Your task to perform on an android device: turn on location history Image 0: 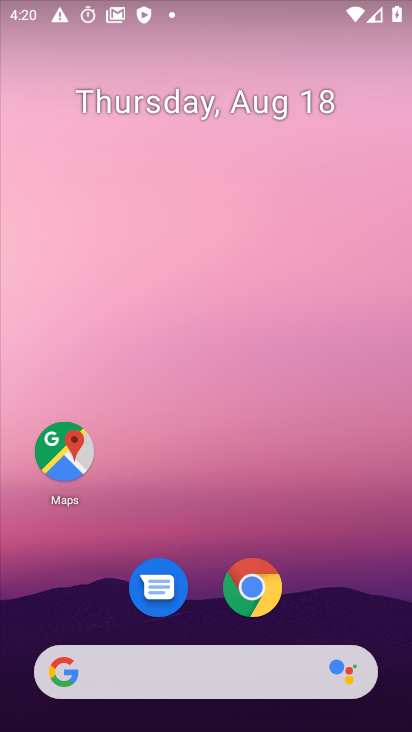
Step 0: drag from (305, 511) to (318, 128)
Your task to perform on an android device: turn on location history Image 1: 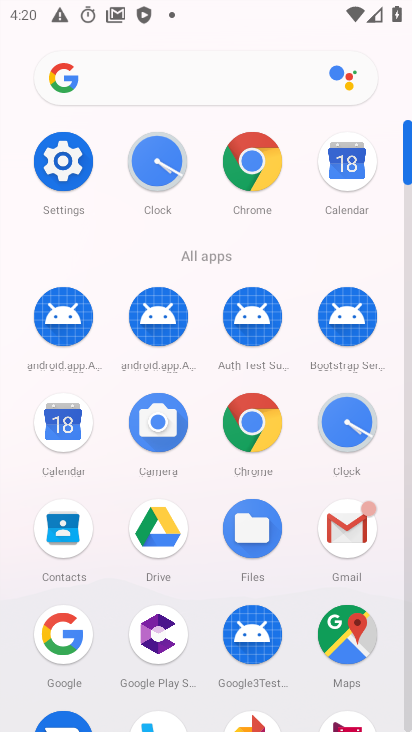
Step 1: click (347, 638)
Your task to perform on an android device: turn on location history Image 2: 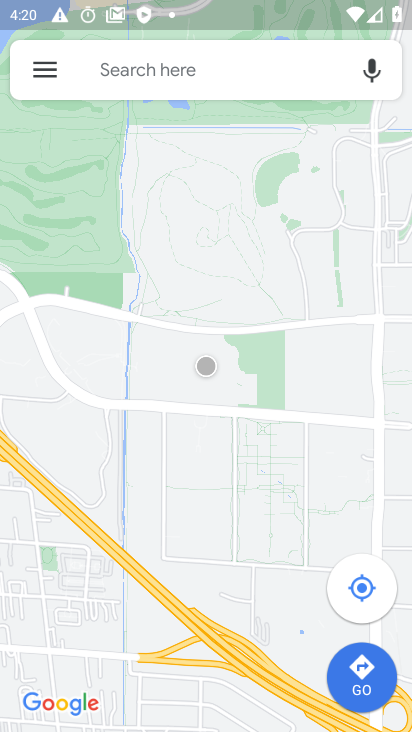
Step 2: click (39, 72)
Your task to perform on an android device: turn on location history Image 3: 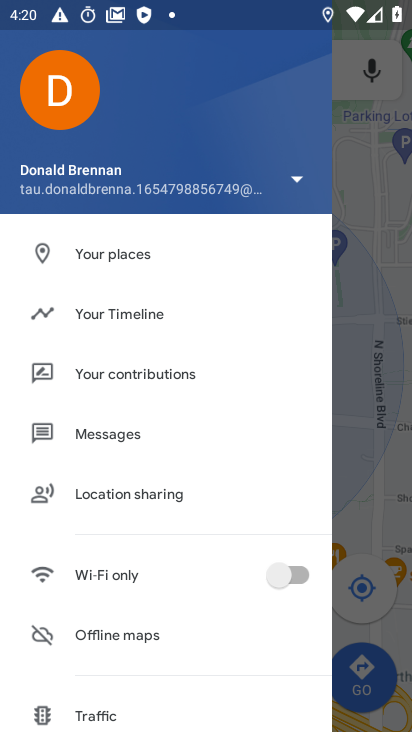
Step 3: click (128, 307)
Your task to perform on an android device: turn on location history Image 4: 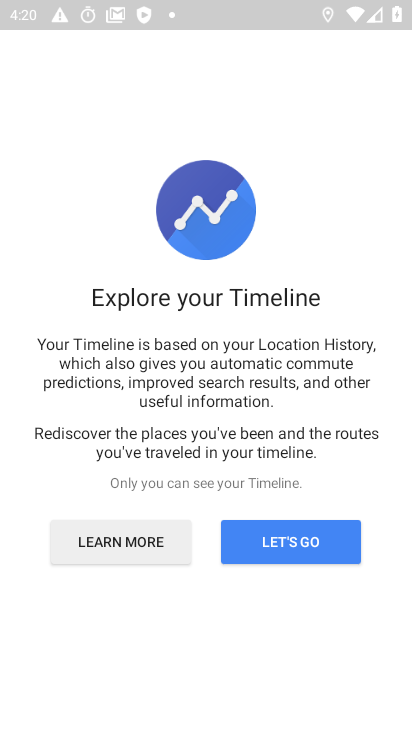
Step 4: click (334, 536)
Your task to perform on an android device: turn on location history Image 5: 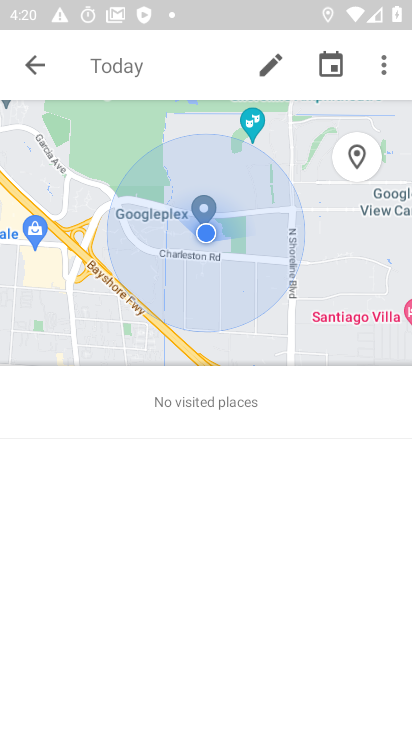
Step 5: click (382, 63)
Your task to perform on an android device: turn on location history Image 6: 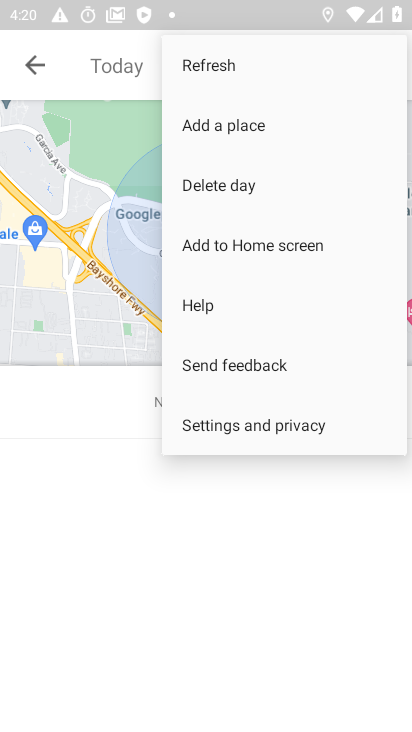
Step 6: click (293, 420)
Your task to perform on an android device: turn on location history Image 7: 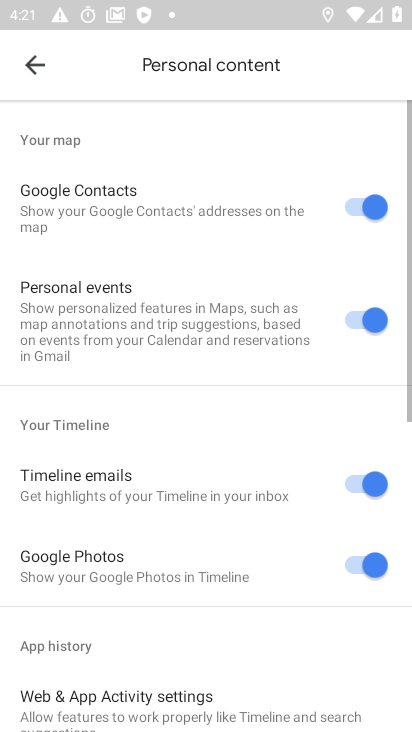
Step 7: drag from (256, 621) to (285, 173)
Your task to perform on an android device: turn on location history Image 8: 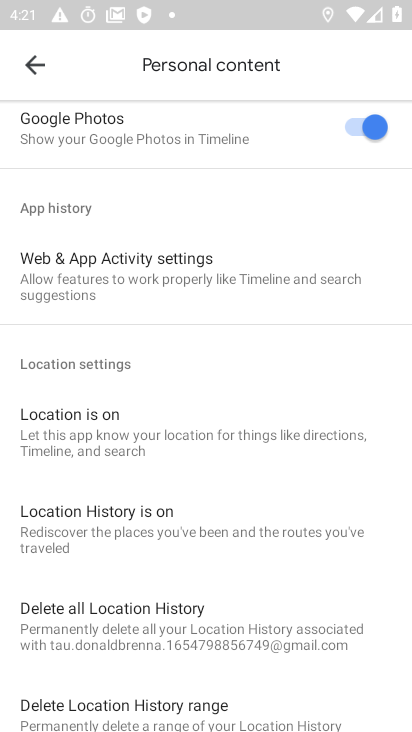
Step 8: click (99, 521)
Your task to perform on an android device: turn on location history Image 9: 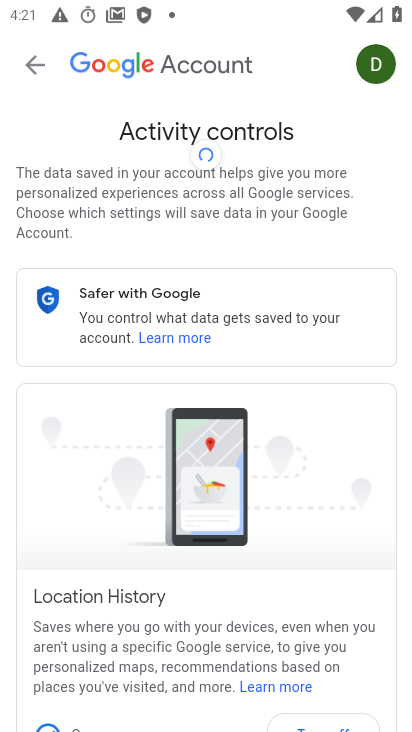
Step 9: task complete